Your task to perform on an android device: choose inbox layout in the gmail app Image 0: 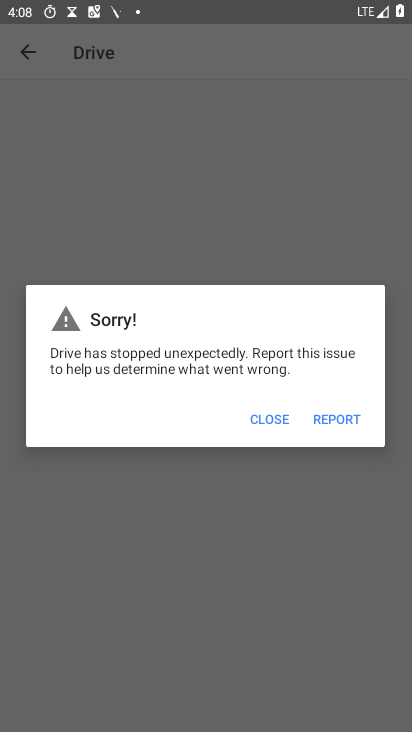
Step 0: press home button
Your task to perform on an android device: choose inbox layout in the gmail app Image 1: 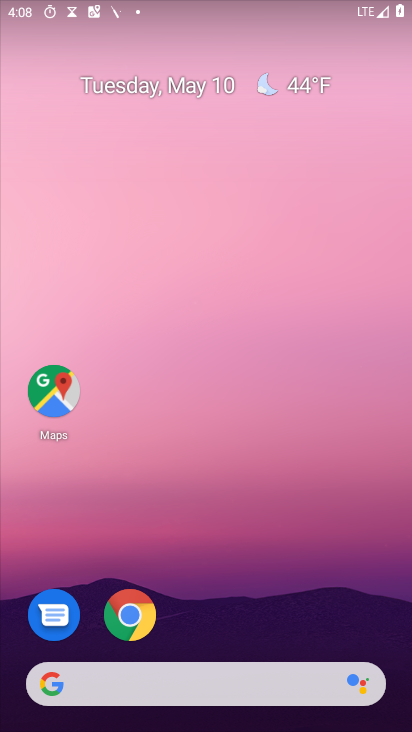
Step 1: drag from (296, 670) to (291, 2)
Your task to perform on an android device: choose inbox layout in the gmail app Image 2: 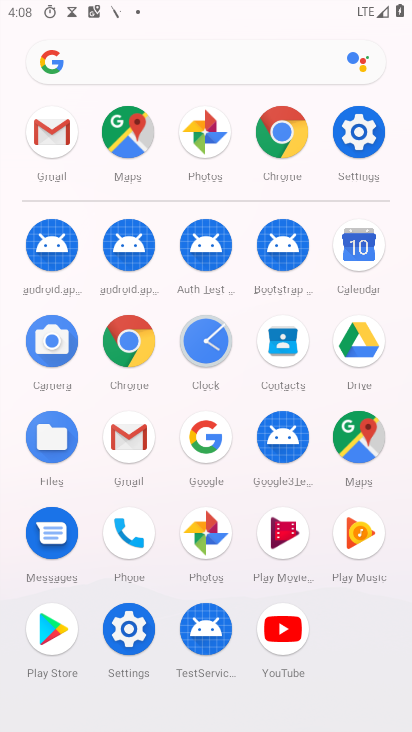
Step 2: click (118, 434)
Your task to perform on an android device: choose inbox layout in the gmail app Image 3: 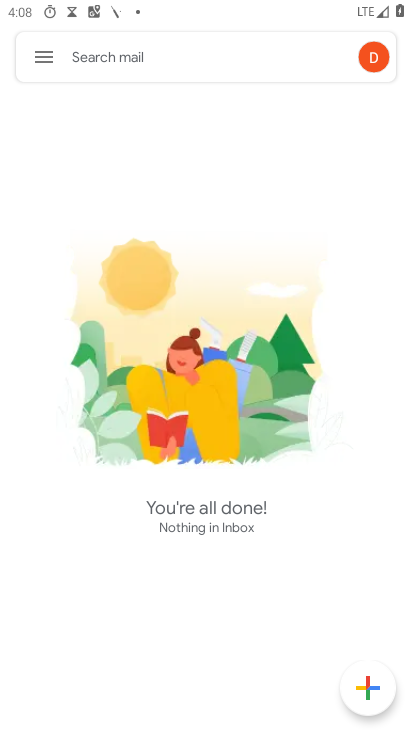
Step 3: click (48, 58)
Your task to perform on an android device: choose inbox layout in the gmail app Image 4: 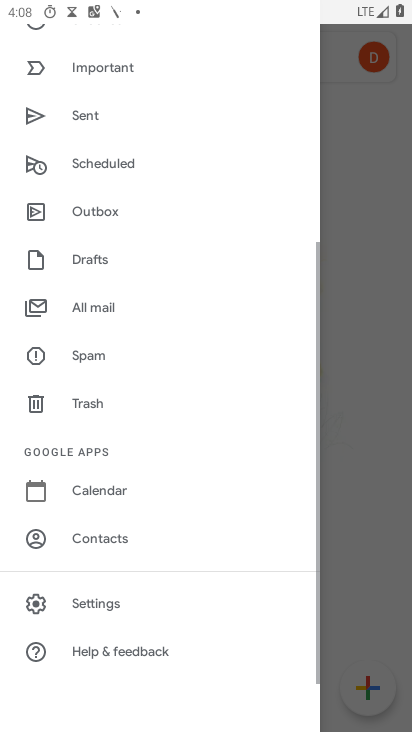
Step 4: click (147, 615)
Your task to perform on an android device: choose inbox layout in the gmail app Image 5: 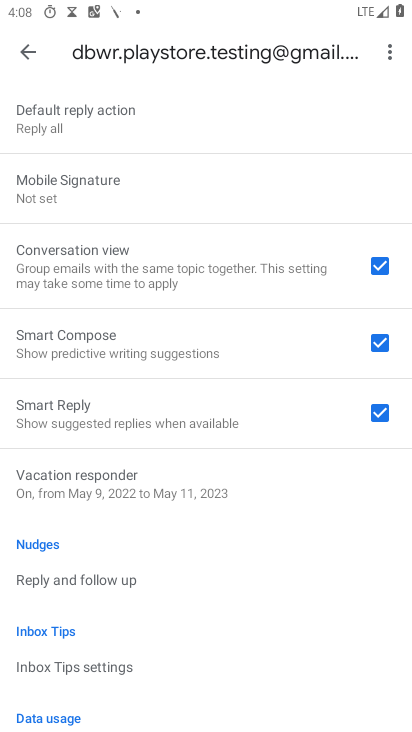
Step 5: drag from (309, 163) to (304, 710)
Your task to perform on an android device: choose inbox layout in the gmail app Image 6: 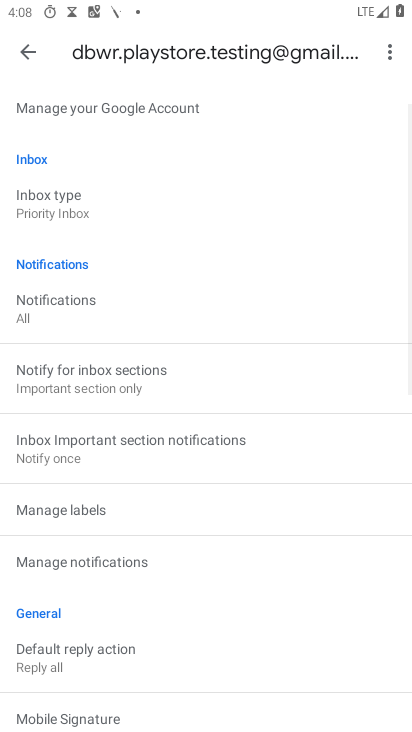
Step 6: drag from (183, 173) to (234, 585)
Your task to perform on an android device: choose inbox layout in the gmail app Image 7: 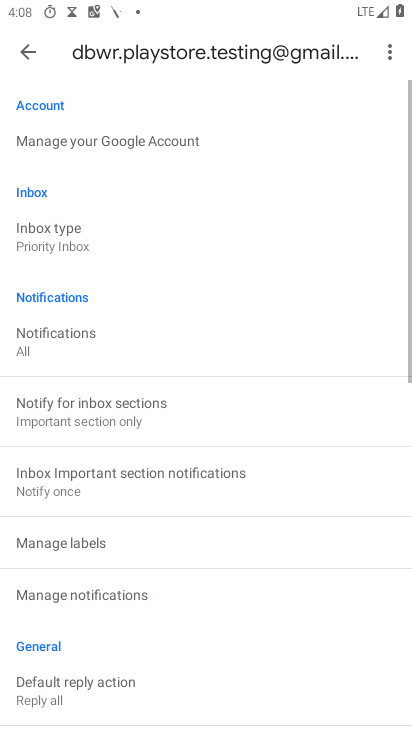
Step 7: click (79, 234)
Your task to perform on an android device: choose inbox layout in the gmail app Image 8: 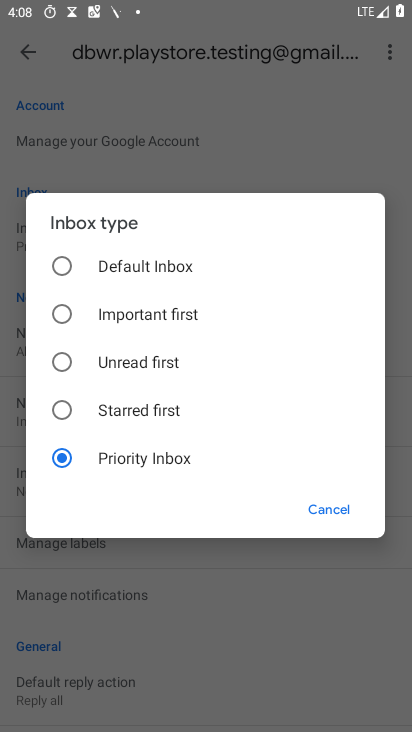
Step 8: click (56, 308)
Your task to perform on an android device: choose inbox layout in the gmail app Image 9: 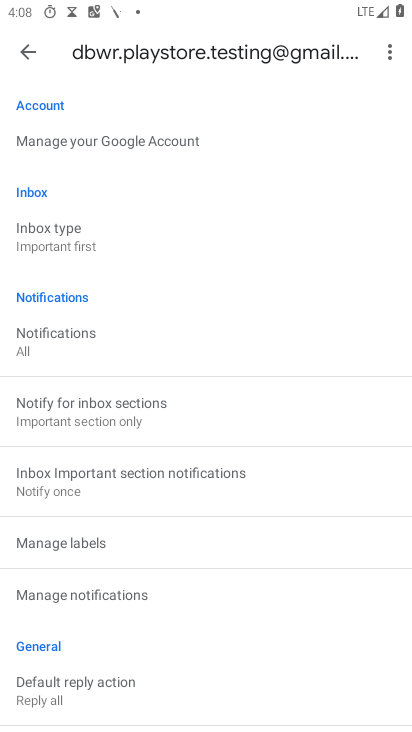
Step 9: task complete